Your task to perform on an android device: turn on javascript in the chrome app Image 0: 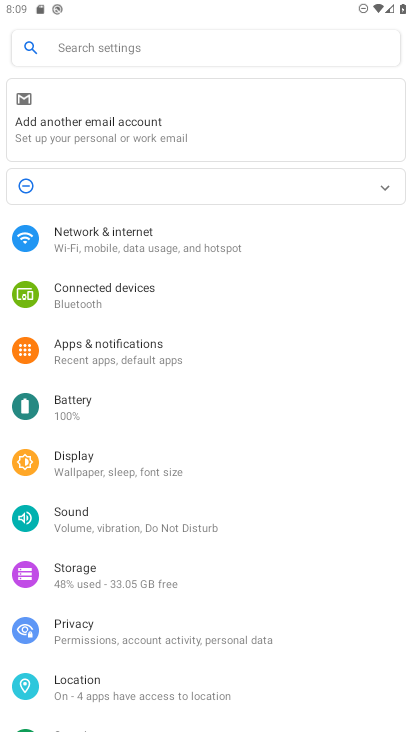
Step 0: press home button
Your task to perform on an android device: turn on javascript in the chrome app Image 1: 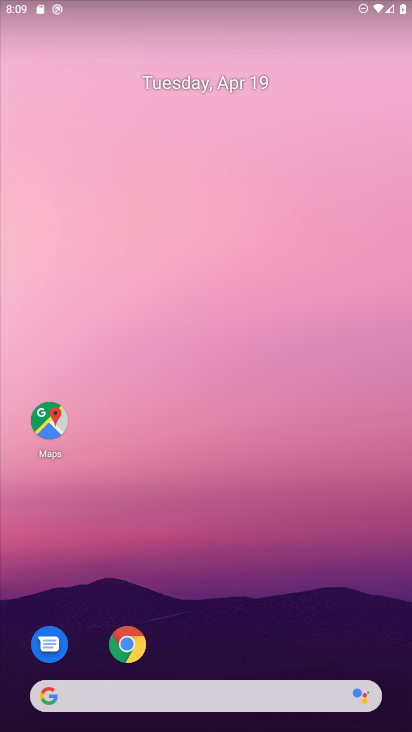
Step 1: click (124, 646)
Your task to perform on an android device: turn on javascript in the chrome app Image 2: 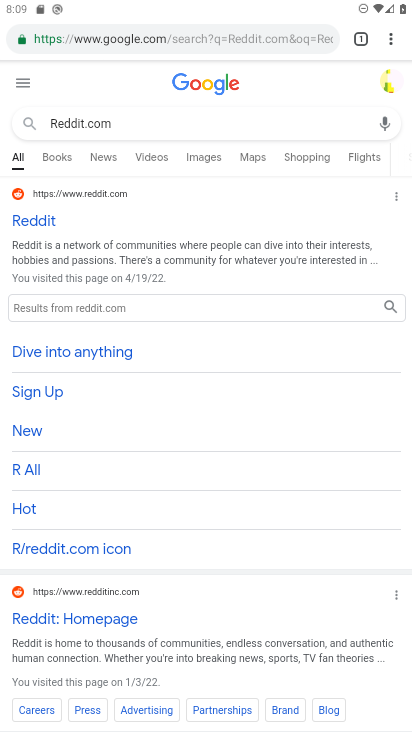
Step 2: click (389, 39)
Your task to perform on an android device: turn on javascript in the chrome app Image 3: 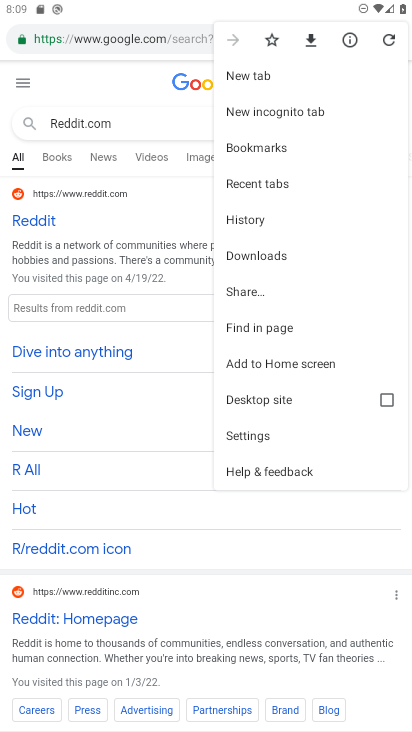
Step 3: click (256, 435)
Your task to perform on an android device: turn on javascript in the chrome app Image 4: 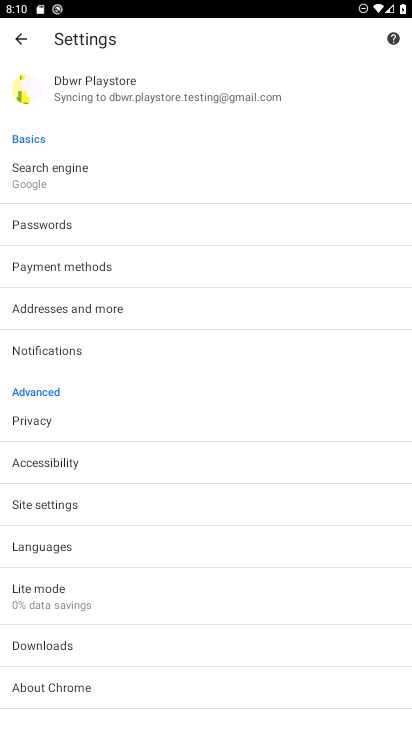
Step 4: click (70, 502)
Your task to perform on an android device: turn on javascript in the chrome app Image 5: 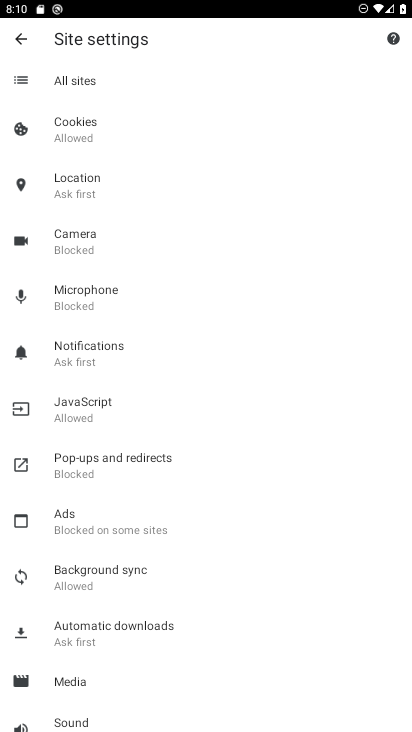
Step 5: click (90, 410)
Your task to perform on an android device: turn on javascript in the chrome app Image 6: 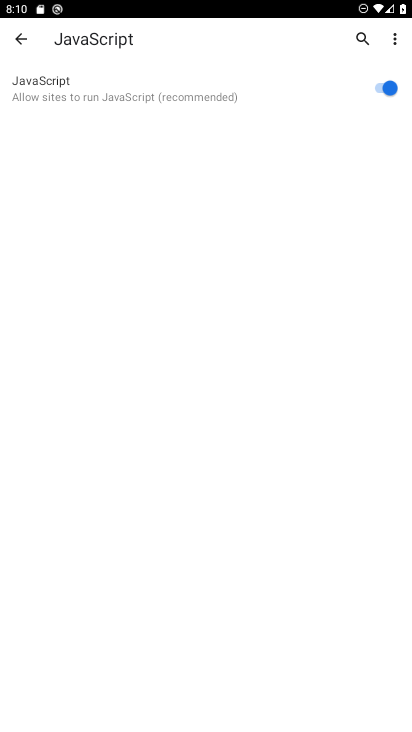
Step 6: task complete